Your task to perform on an android device: Go to privacy settings Image 0: 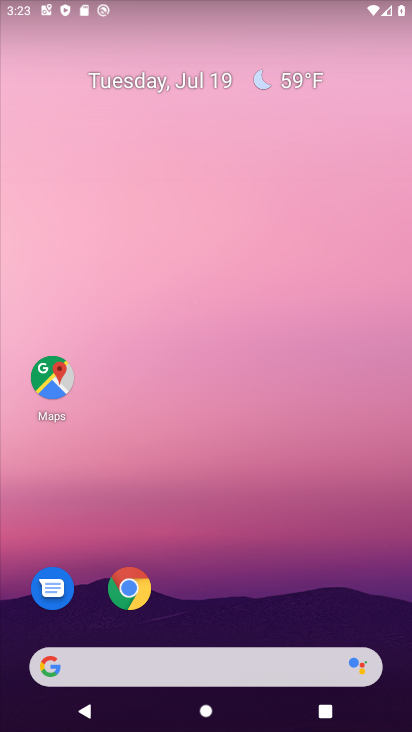
Step 0: drag from (213, 608) to (169, 176)
Your task to perform on an android device: Go to privacy settings Image 1: 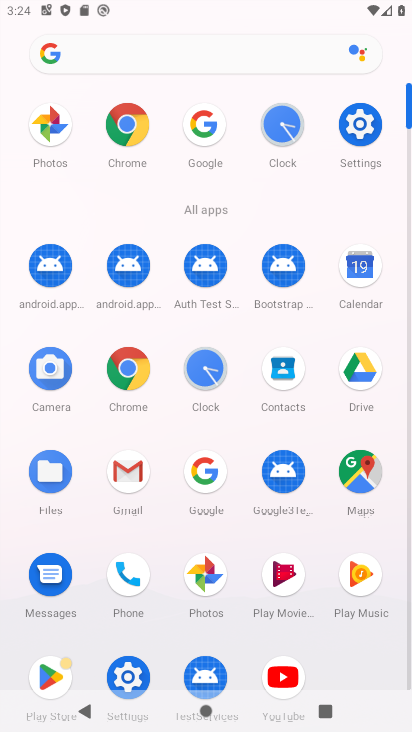
Step 1: click (345, 130)
Your task to perform on an android device: Go to privacy settings Image 2: 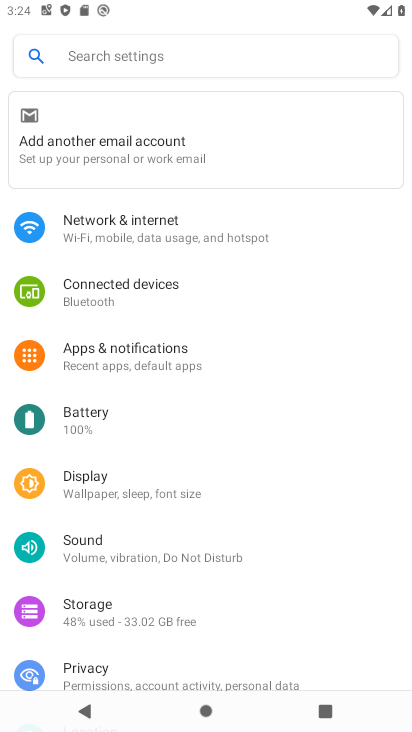
Step 2: click (122, 663)
Your task to perform on an android device: Go to privacy settings Image 3: 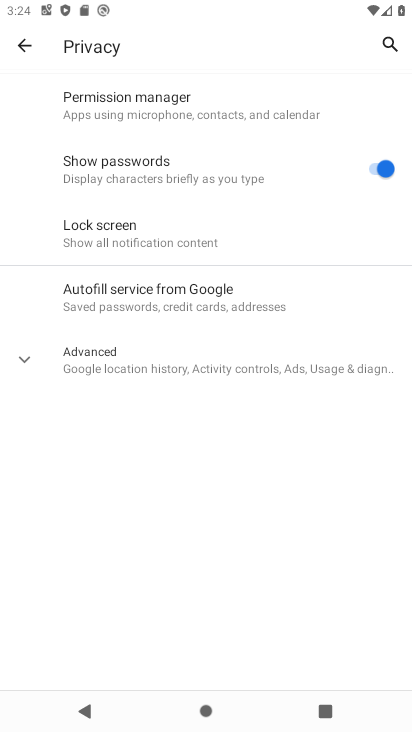
Step 3: task complete